Your task to perform on an android device: turn on showing notifications on the lock screen Image 0: 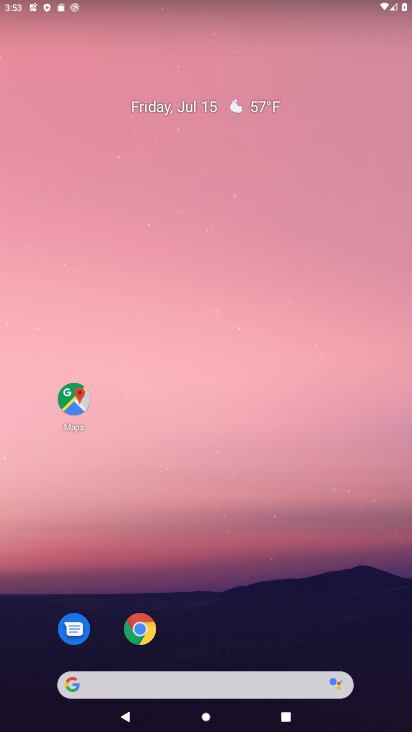
Step 0: press home button
Your task to perform on an android device: turn on showing notifications on the lock screen Image 1: 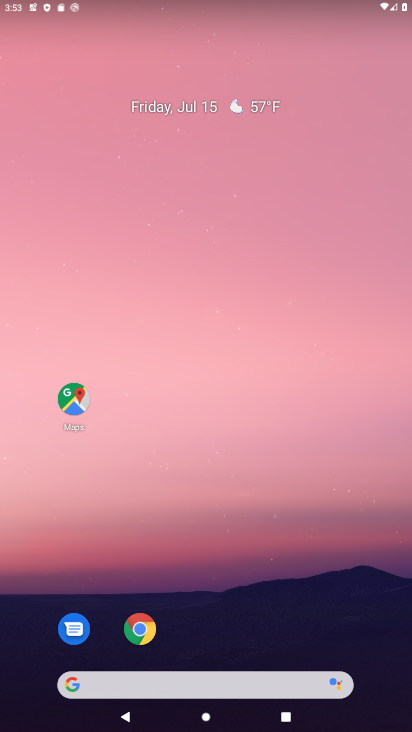
Step 1: drag from (275, 634) to (267, 25)
Your task to perform on an android device: turn on showing notifications on the lock screen Image 2: 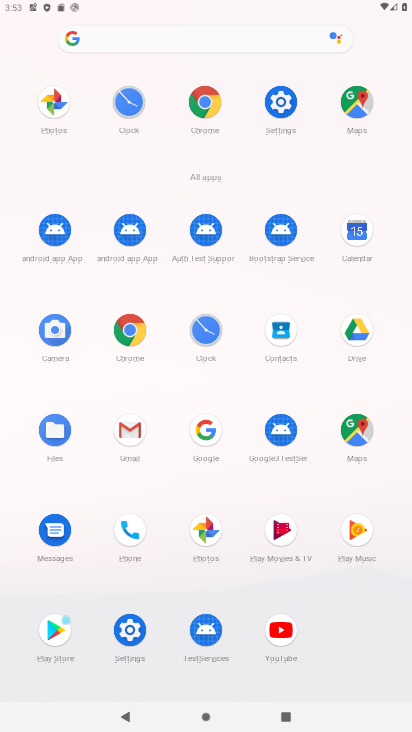
Step 2: click (278, 98)
Your task to perform on an android device: turn on showing notifications on the lock screen Image 3: 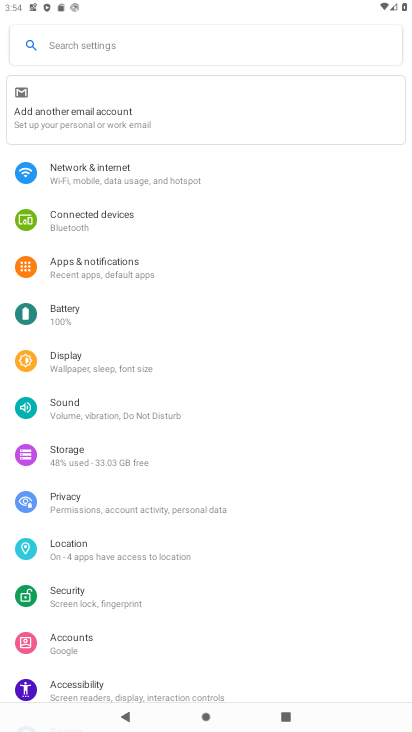
Step 3: click (109, 258)
Your task to perform on an android device: turn on showing notifications on the lock screen Image 4: 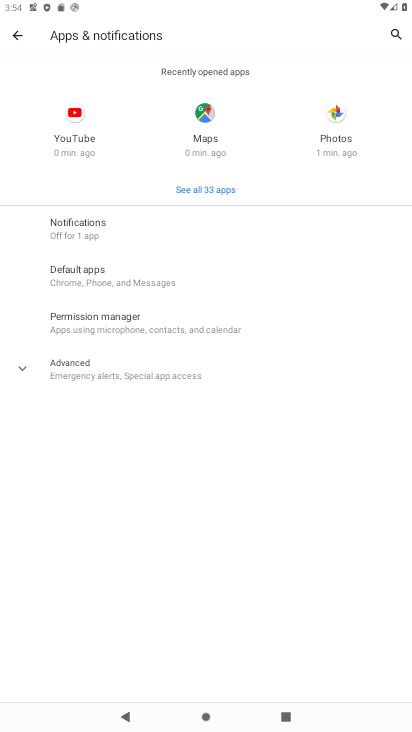
Step 4: click (62, 226)
Your task to perform on an android device: turn on showing notifications on the lock screen Image 5: 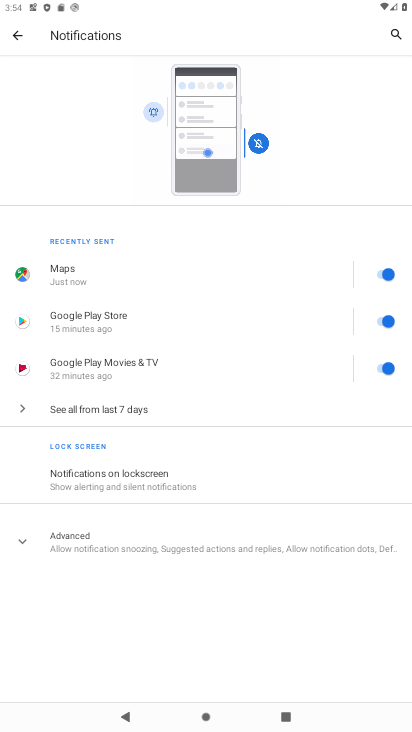
Step 5: click (164, 472)
Your task to perform on an android device: turn on showing notifications on the lock screen Image 6: 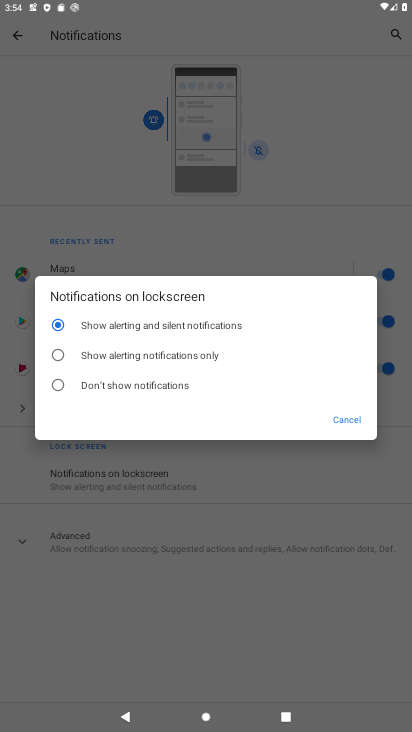
Step 6: task complete